Your task to perform on an android device: visit the assistant section in the google photos Image 0: 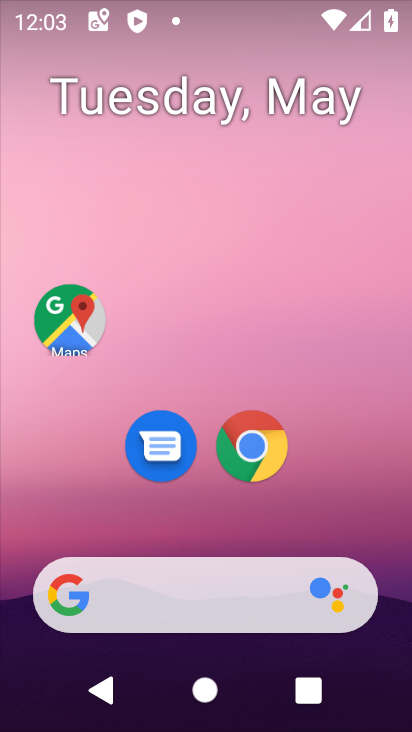
Step 0: drag from (353, 292) to (363, 68)
Your task to perform on an android device: visit the assistant section in the google photos Image 1: 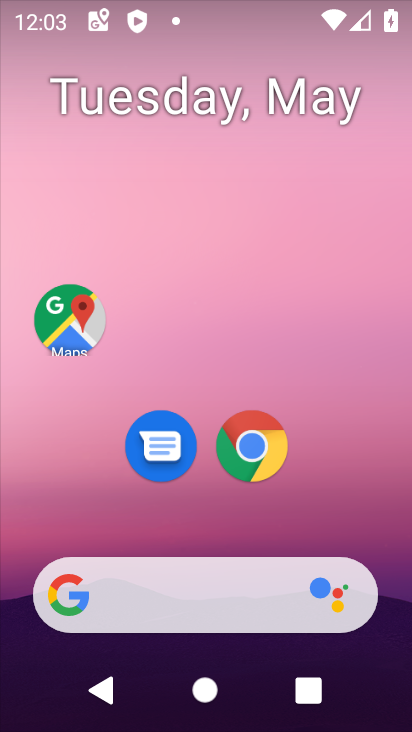
Step 1: drag from (324, 507) to (349, 2)
Your task to perform on an android device: visit the assistant section in the google photos Image 2: 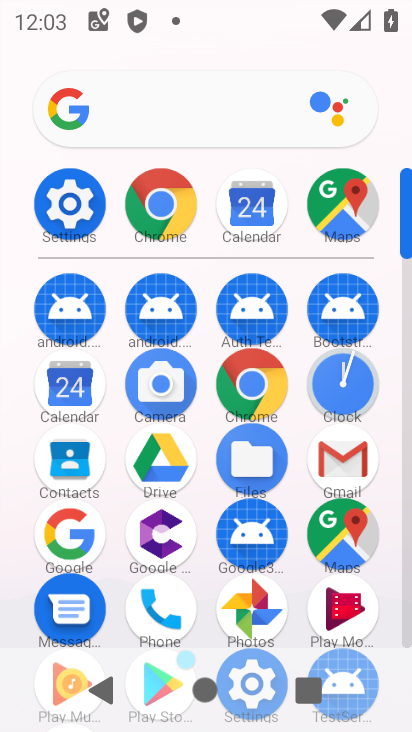
Step 2: click (262, 609)
Your task to perform on an android device: visit the assistant section in the google photos Image 3: 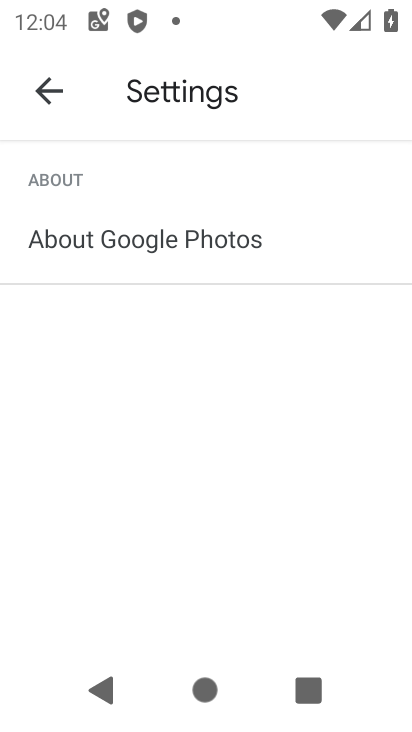
Step 3: click (59, 109)
Your task to perform on an android device: visit the assistant section in the google photos Image 4: 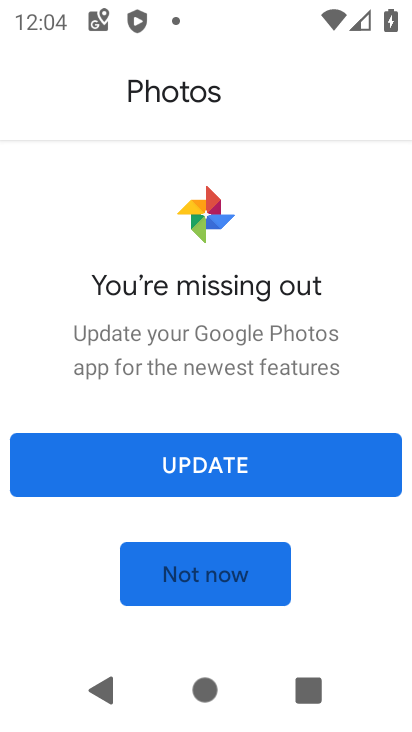
Step 4: click (279, 434)
Your task to perform on an android device: visit the assistant section in the google photos Image 5: 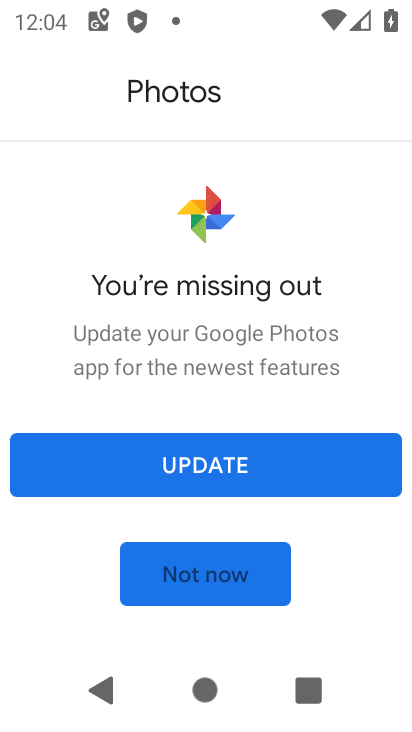
Step 5: click (242, 473)
Your task to perform on an android device: visit the assistant section in the google photos Image 6: 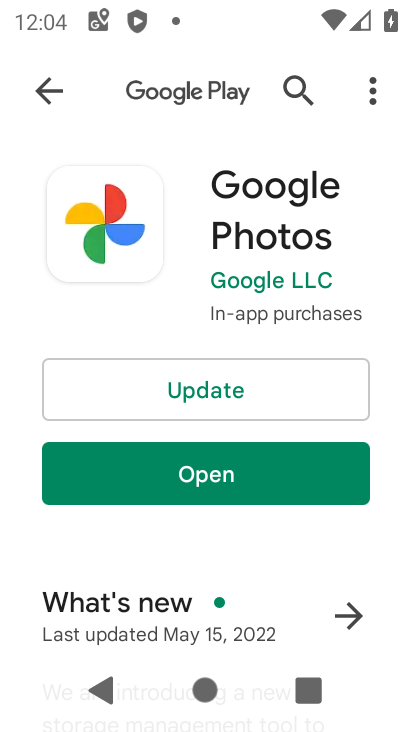
Step 6: click (219, 406)
Your task to perform on an android device: visit the assistant section in the google photos Image 7: 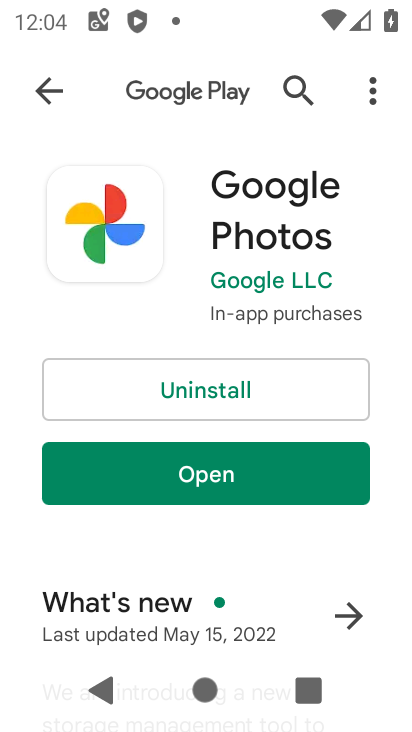
Step 7: click (263, 504)
Your task to perform on an android device: visit the assistant section in the google photos Image 8: 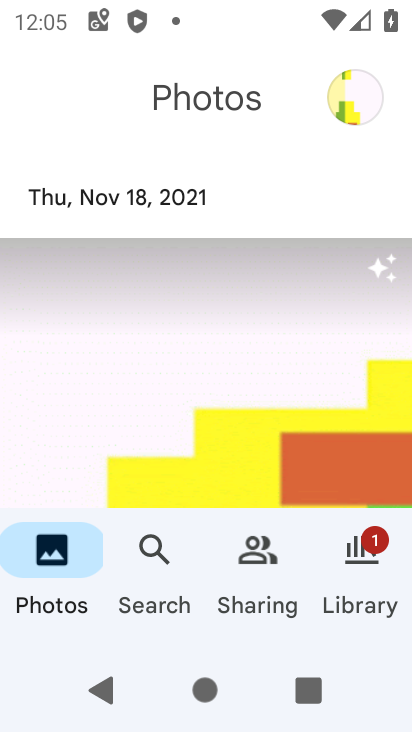
Step 8: task complete